Your task to perform on an android device: turn pop-ups on in chrome Image 0: 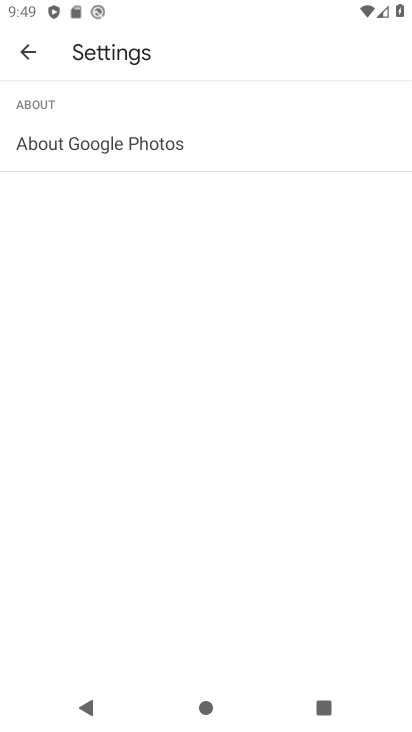
Step 0: press home button
Your task to perform on an android device: turn pop-ups on in chrome Image 1: 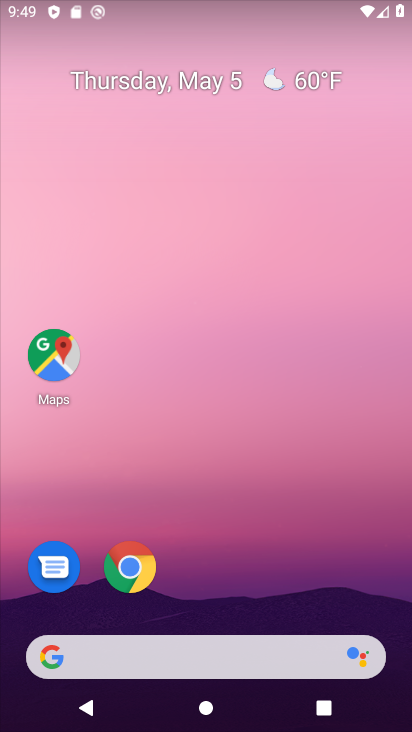
Step 1: click (118, 555)
Your task to perform on an android device: turn pop-ups on in chrome Image 2: 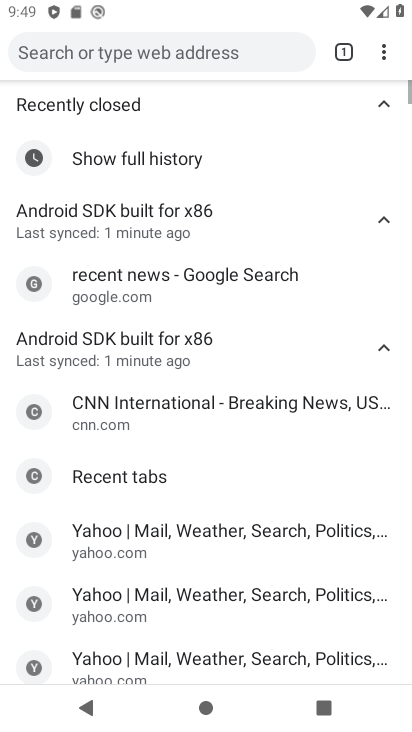
Step 2: click (381, 53)
Your task to perform on an android device: turn pop-ups on in chrome Image 3: 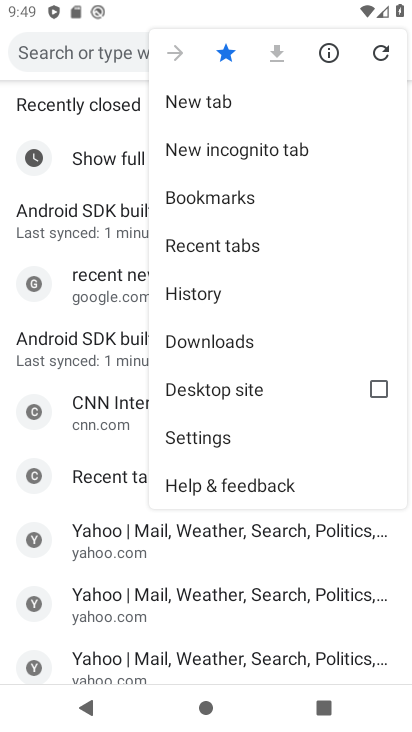
Step 3: click (207, 441)
Your task to perform on an android device: turn pop-ups on in chrome Image 4: 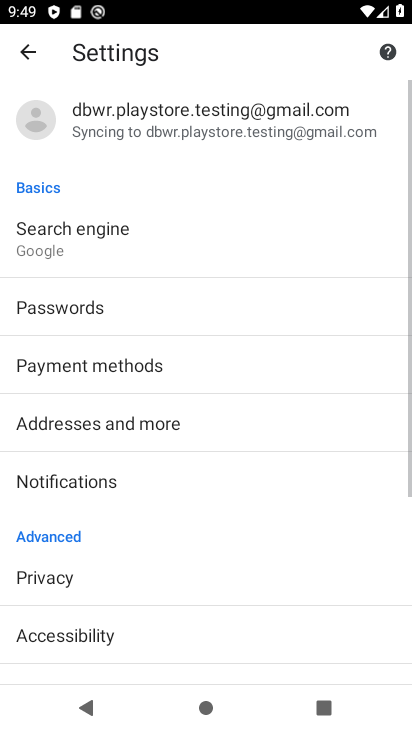
Step 4: drag from (149, 605) to (148, 325)
Your task to perform on an android device: turn pop-ups on in chrome Image 5: 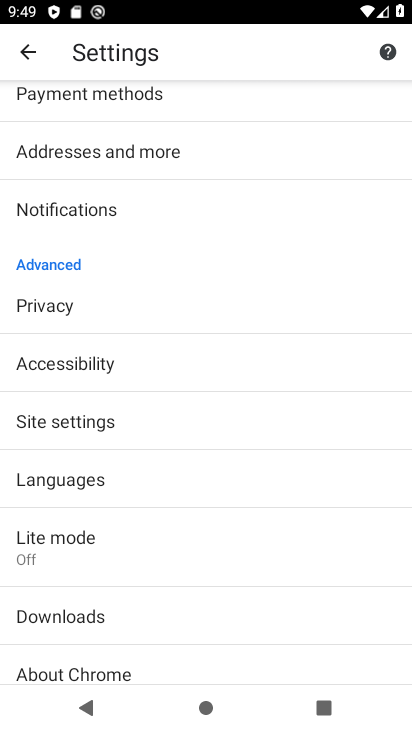
Step 5: click (135, 419)
Your task to perform on an android device: turn pop-ups on in chrome Image 6: 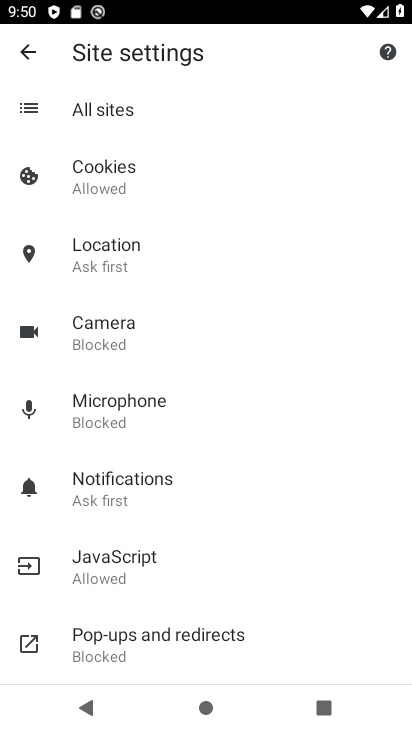
Step 6: click (162, 635)
Your task to perform on an android device: turn pop-ups on in chrome Image 7: 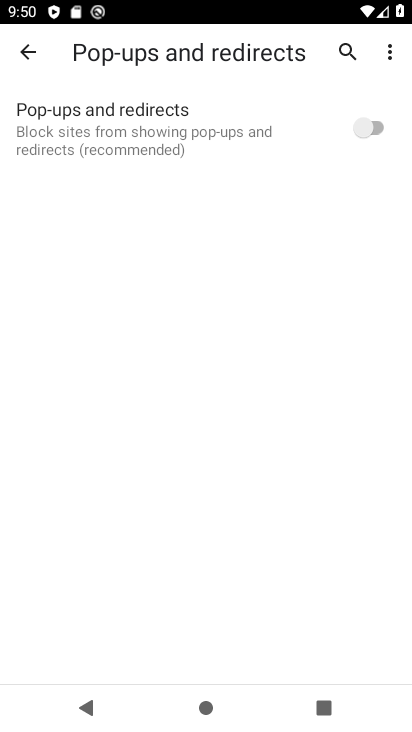
Step 7: click (357, 127)
Your task to perform on an android device: turn pop-ups on in chrome Image 8: 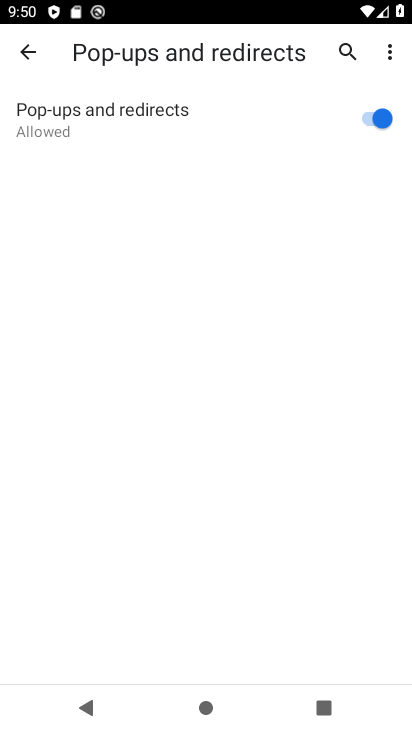
Step 8: task complete